Your task to perform on an android device: Open Google Image 0: 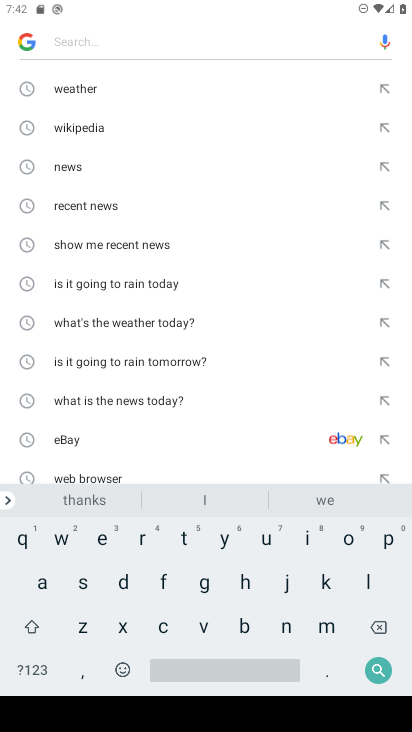
Step 0: press home button
Your task to perform on an android device: Open Google Image 1: 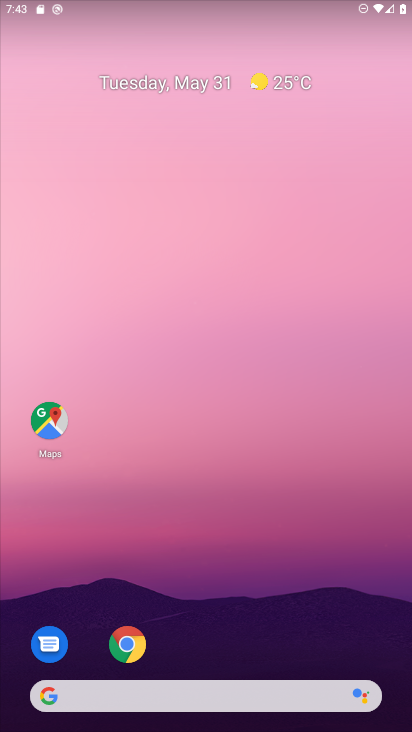
Step 1: click (44, 691)
Your task to perform on an android device: Open Google Image 2: 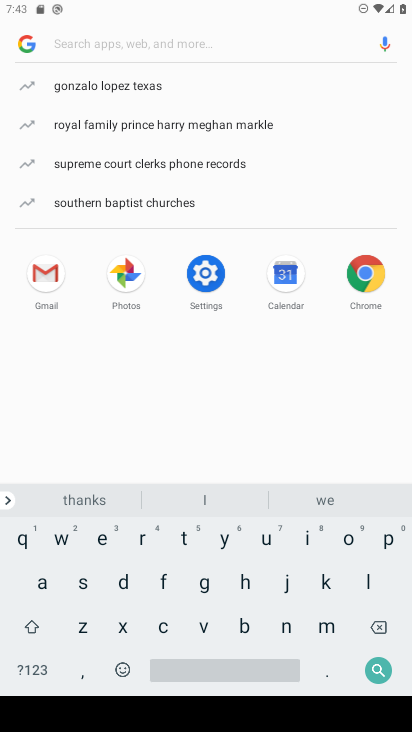
Step 2: click (24, 44)
Your task to perform on an android device: Open Google Image 3: 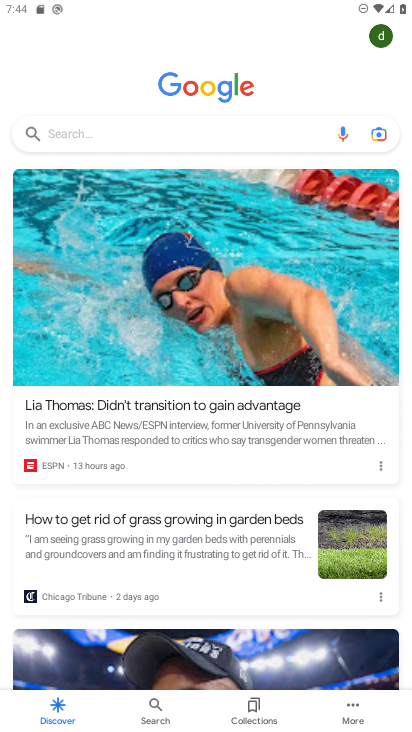
Step 3: task complete